Your task to perform on an android device: turn on sleep mode Image 0: 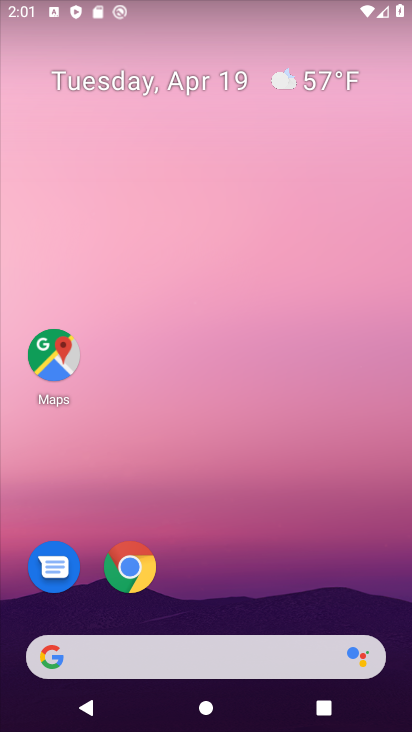
Step 0: drag from (378, 608) to (315, 77)
Your task to perform on an android device: turn on sleep mode Image 1: 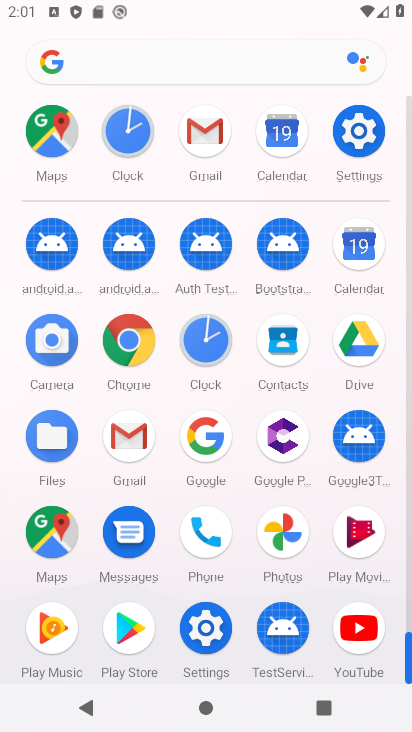
Step 1: click (208, 627)
Your task to perform on an android device: turn on sleep mode Image 2: 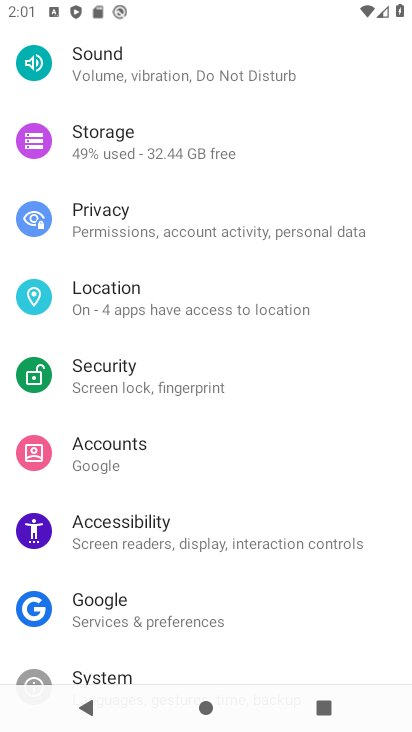
Step 2: drag from (370, 138) to (351, 422)
Your task to perform on an android device: turn on sleep mode Image 3: 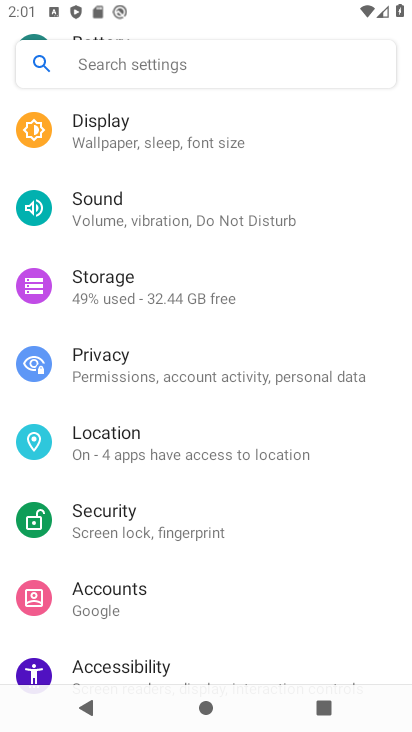
Step 3: drag from (355, 196) to (347, 509)
Your task to perform on an android device: turn on sleep mode Image 4: 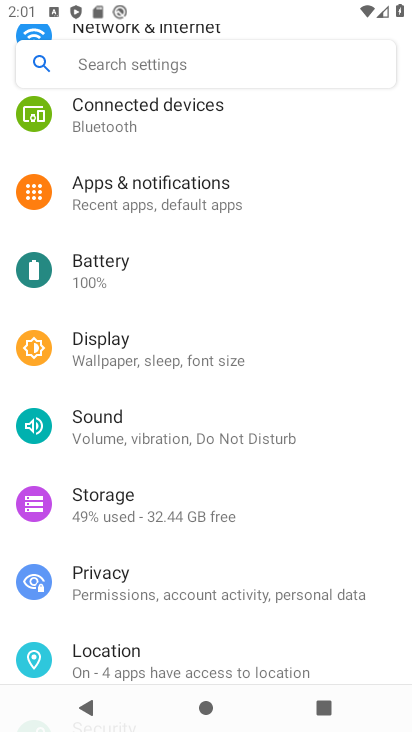
Step 4: click (85, 339)
Your task to perform on an android device: turn on sleep mode Image 5: 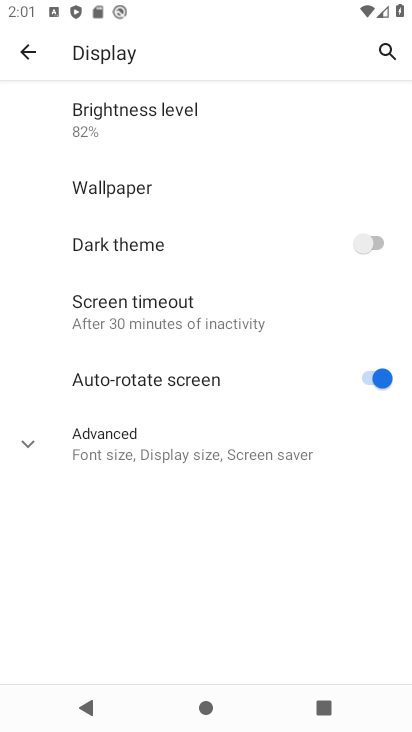
Step 5: click (26, 442)
Your task to perform on an android device: turn on sleep mode Image 6: 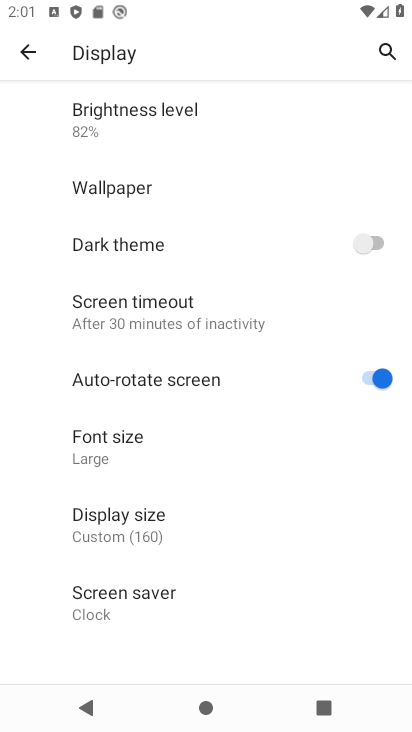
Step 6: task complete